Your task to perform on an android device: turn off improve location accuracy Image 0: 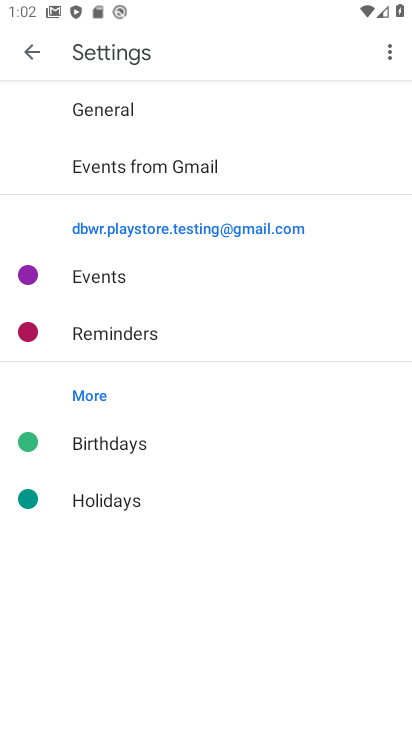
Step 0: press home button
Your task to perform on an android device: turn off improve location accuracy Image 1: 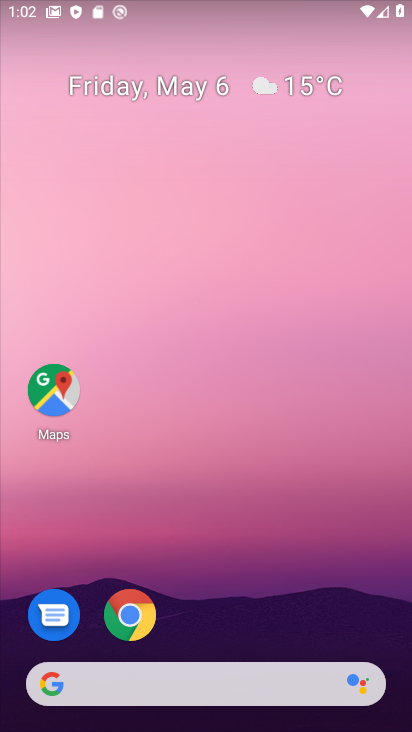
Step 1: drag from (255, 570) to (280, 45)
Your task to perform on an android device: turn off improve location accuracy Image 2: 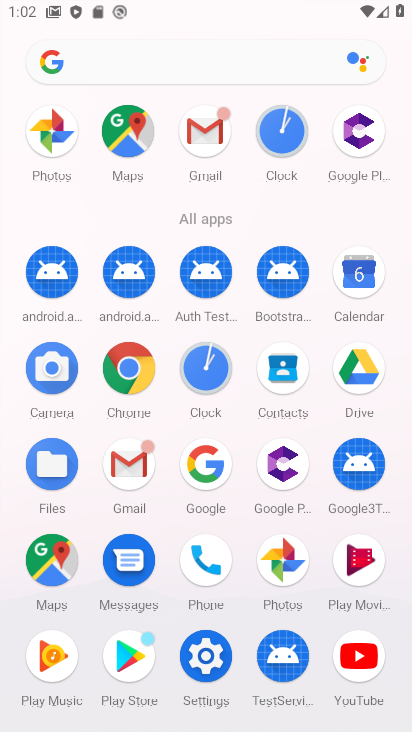
Step 2: click (214, 642)
Your task to perform on an android device: turn off improve location accuracy Image 3: 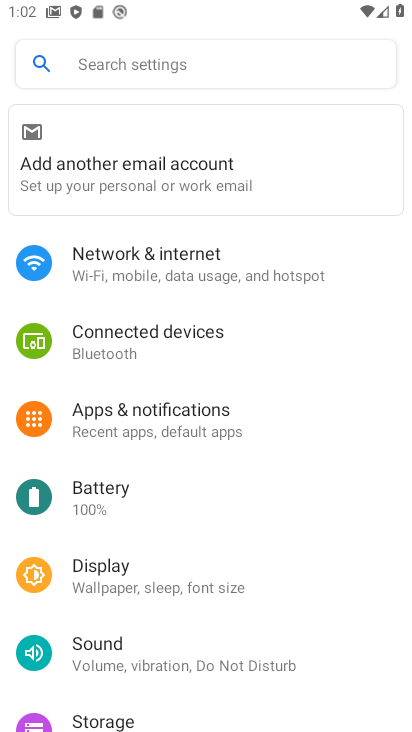
Step 3: drag from (279, 623) to (275, 214)
Your task to perform on an android device: turn off improve location accuracy Image 4: 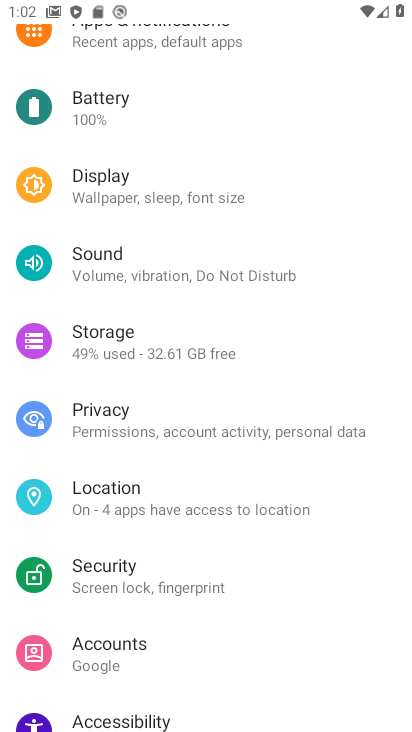
Step 4: click (202, 502)
Your task to perform on an android device: turn off improve location accuracy Image 5: 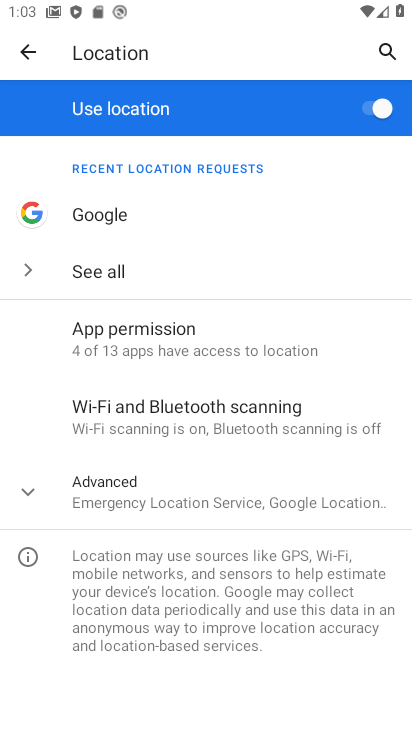
Step 5: click (25, 482)
Your task to perform on an android device: turn off improve location accuracy Image 6: 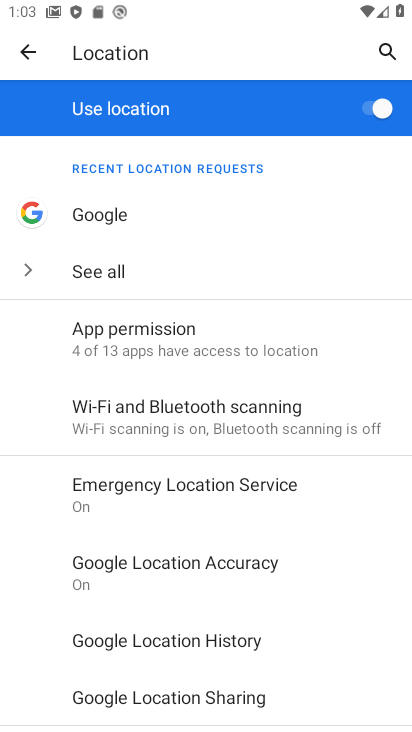
Step 6: click (256, 578)
Your task to perform on an android device: turn off improve location accuracy Image 7: 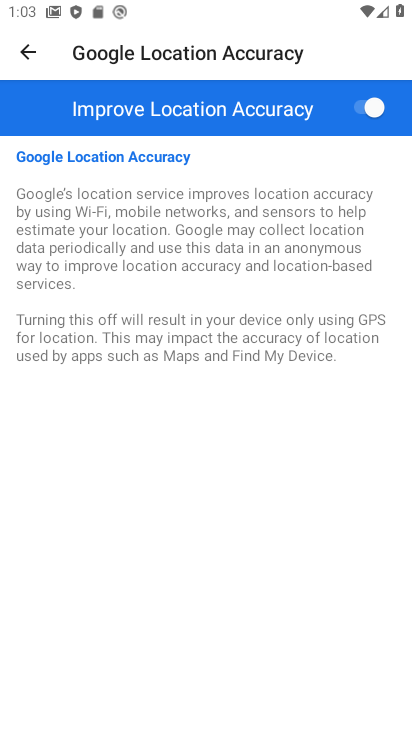
Step 7: click (359, 105)
Your task to perform on an android device: turn off improve location accuracy Image 8: 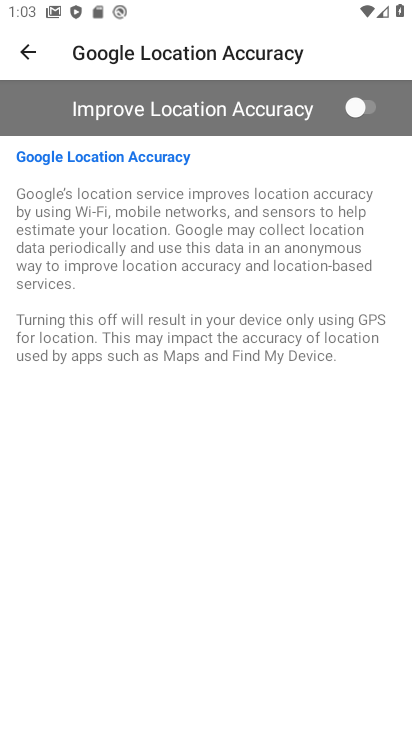
Step 8: task complete